Your task to perform on an android device: turn on the 12-hour format for clock Image 0: 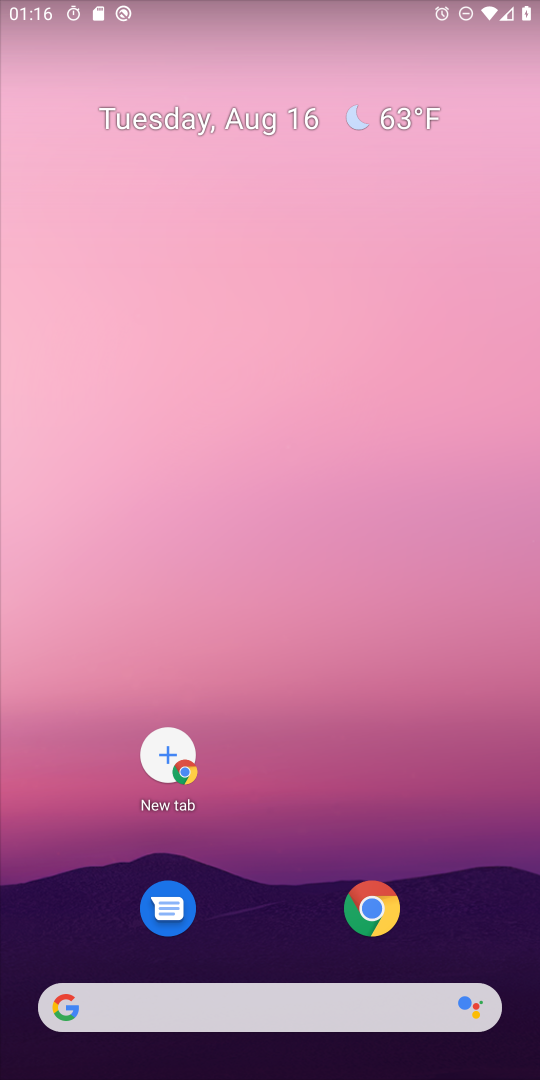
Step 0: drag from (265, 920) to (246, 6)
Your task to perform on an android device: turn on the 12-hour format for clock Image 1: 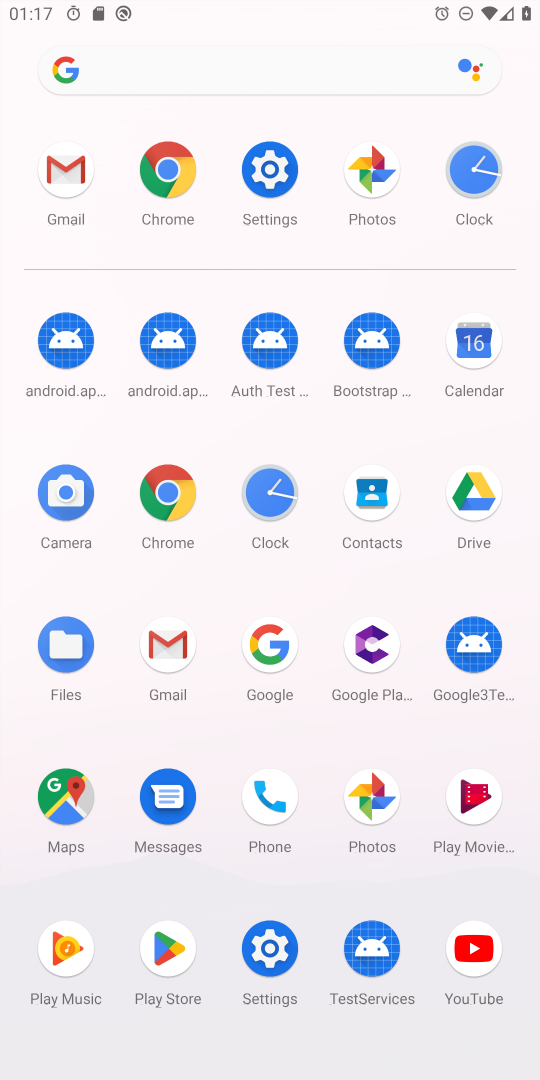
Step 1: click (454, 180)
Your task to perform on an android device: turn on the 12-hour format for clock Image 2: 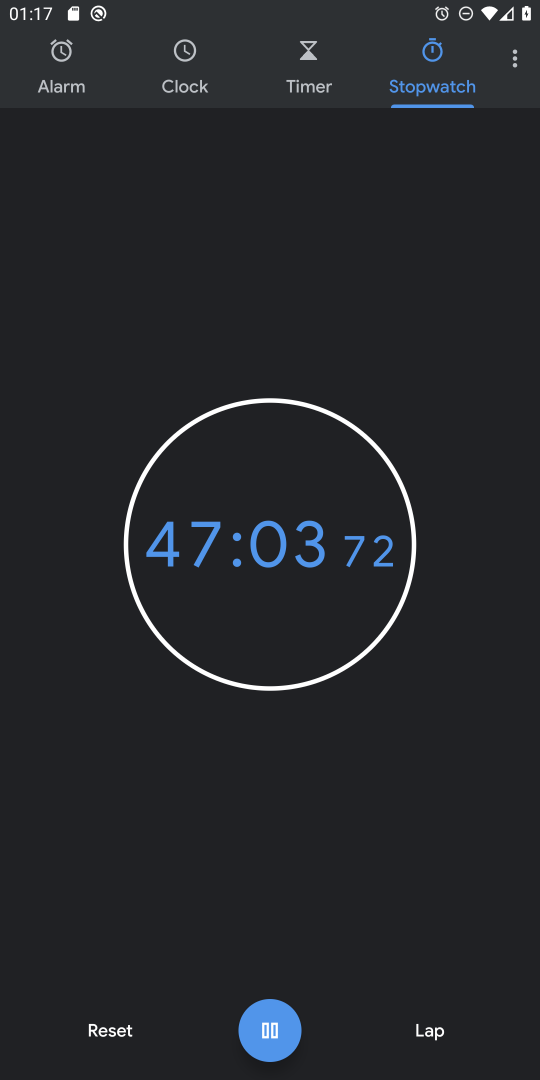
Step 2: click (521, 62)
Your task to perform on an android device: turn on the 12-hour format for clock Image 3: 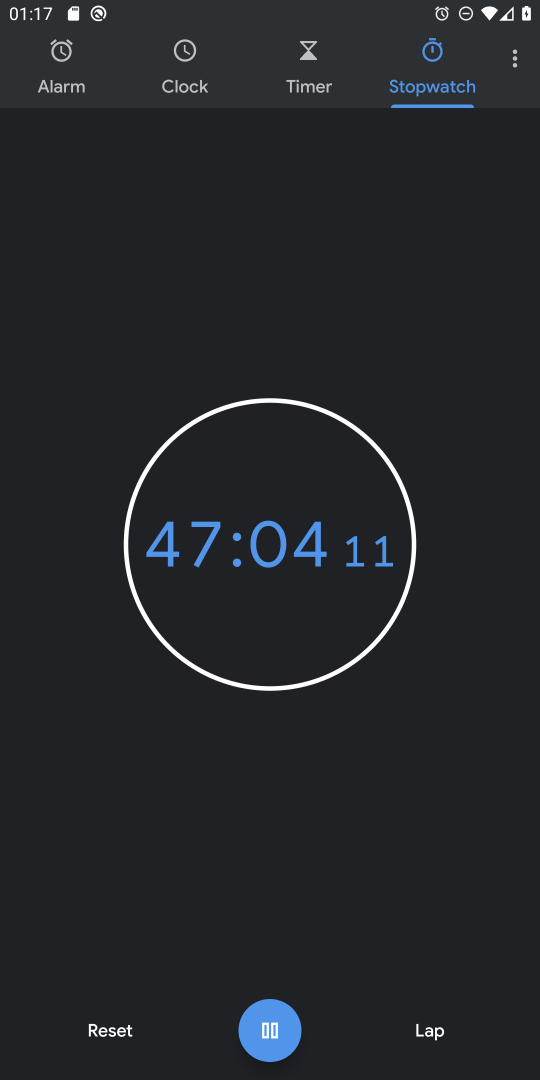
Step 3: click (521, 62)
Your task to perform on an android device: turn on the 12-hour format for clock Image 4: 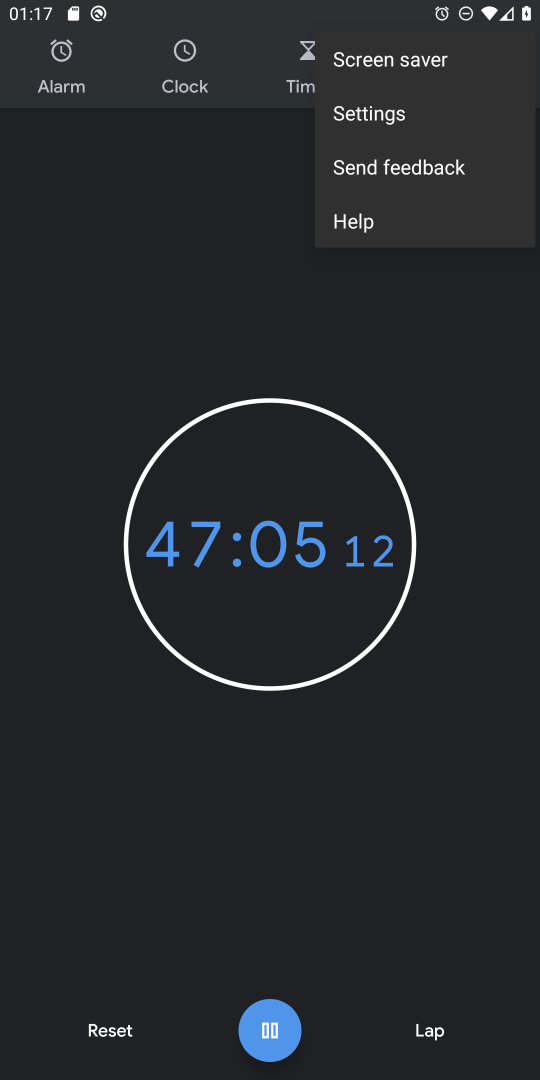
Step 4: click (521, 62)
Your task to perform on an android device: turn on the 12-hour format for clock Image 5: 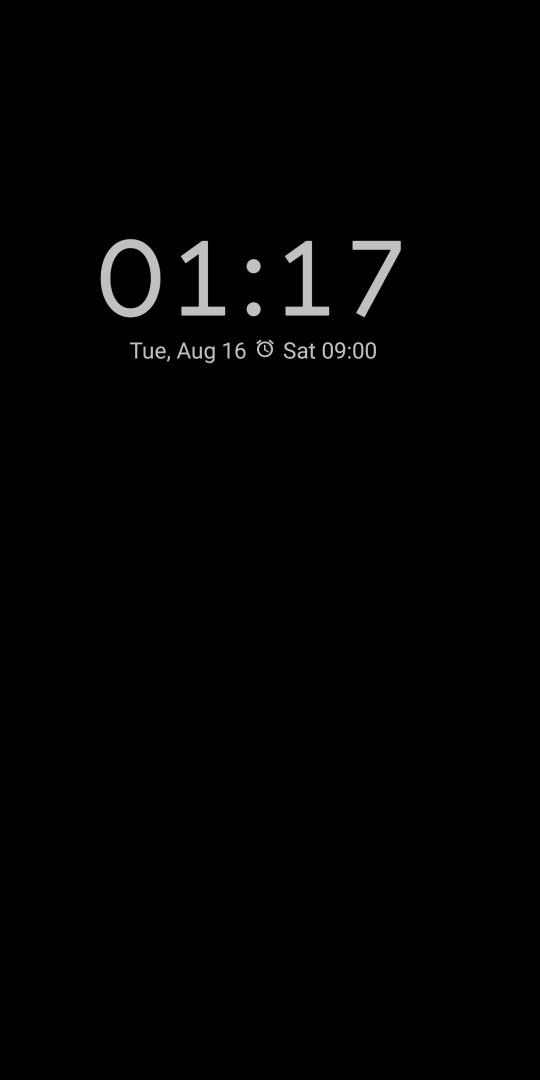
Step 5: press back button
Your task to perform on an android device: turn on the 12-hour format for clock Image 6: 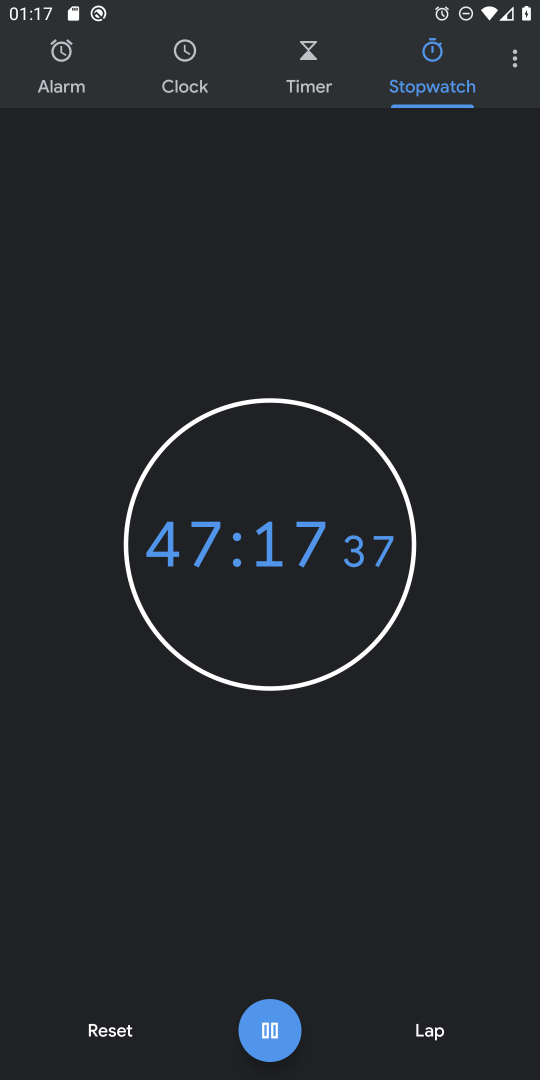
Step 6: click (526, 57)
Your task to perform on an android device: turn on the 12-hour format for clock Image 7: 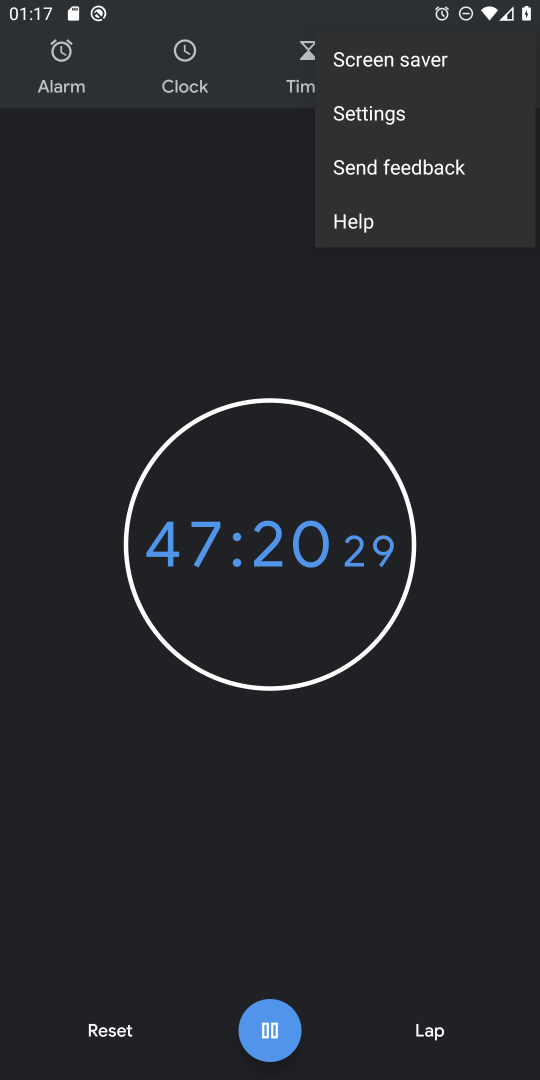
Step 7: click (457, 120)
Your task to perform on an android device: turn on the 12-hour format for clock Image 8: 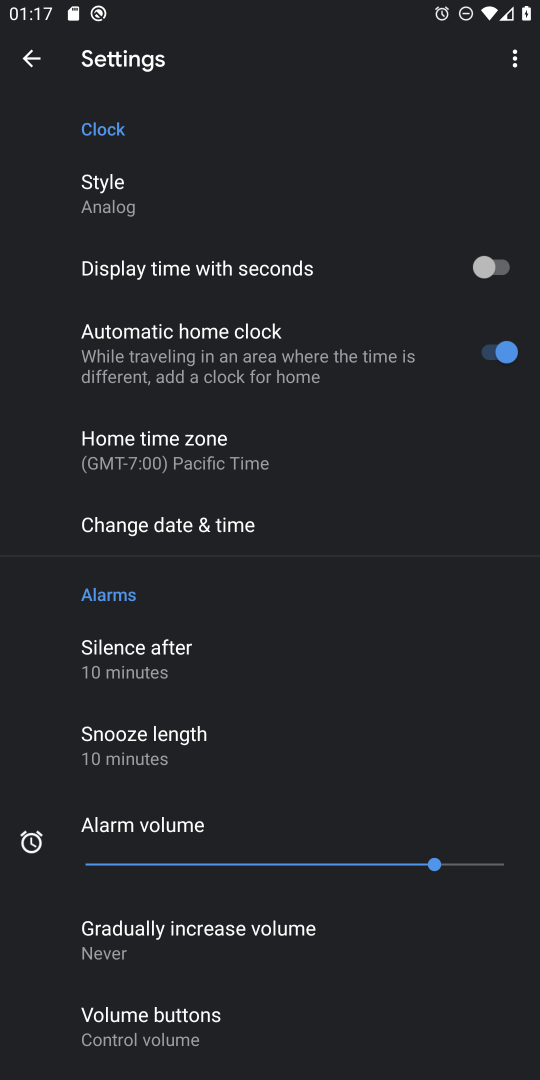
Step 8: click (205, 546)
Your task to perform on an android device: turn on the 12-hour format for clock Image 9: 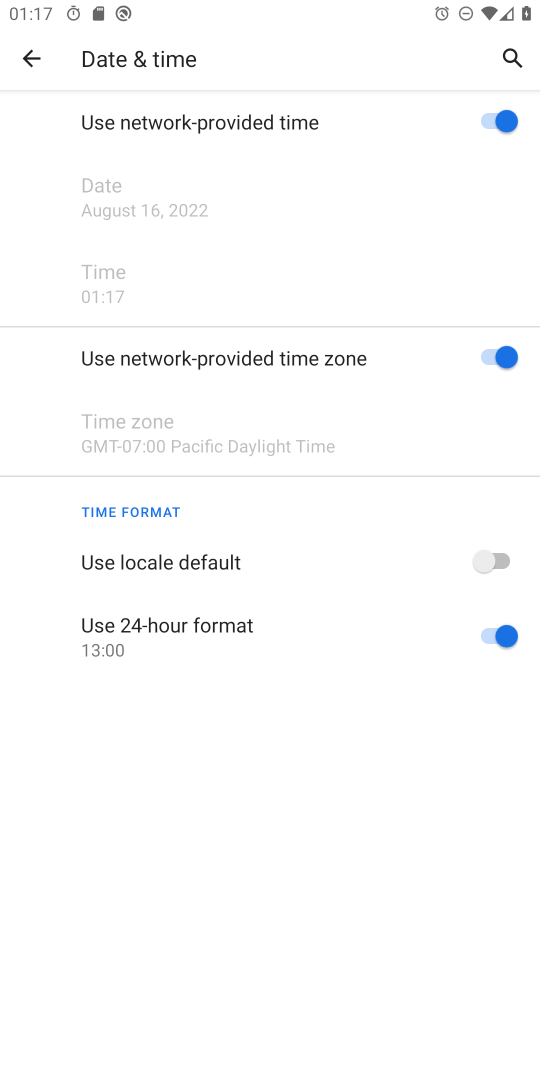
Step 9: task complete